Your task to perform on an android device: turn pop-ups on in chrome Image 0: 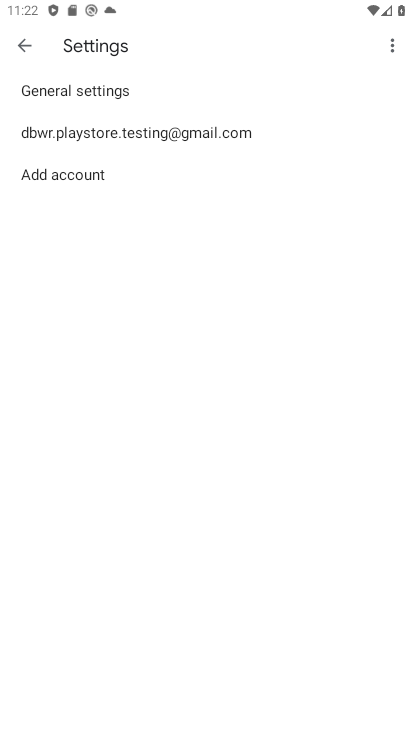
Step 0: press home button
Your task to perform on an android device: turn pop-ups on in chrome Image 1: 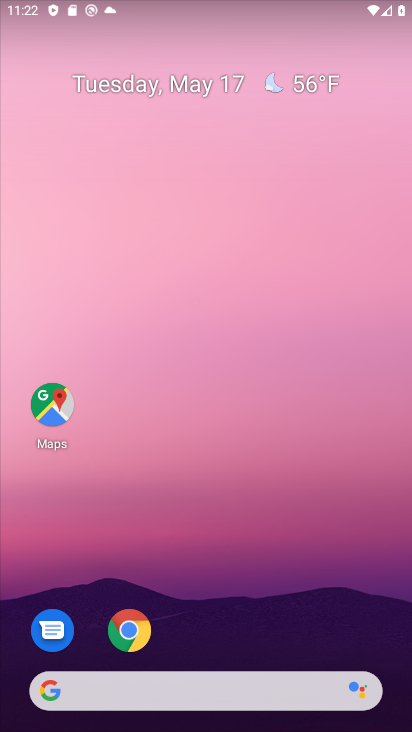
Step 1: drag from (357, 590) to (310, 211)
Your task to perform on an android device: turn pop-ups on in chrome Image 2: 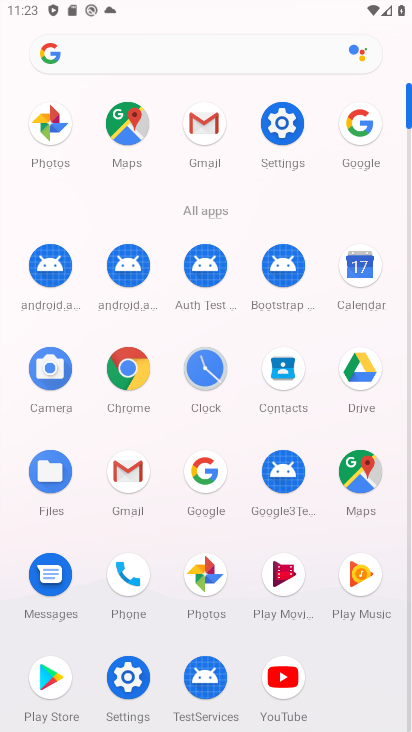
Step 2: click (134, 382)
Your task to perform on an android device: turn pop-ups on in chrome Image 3: 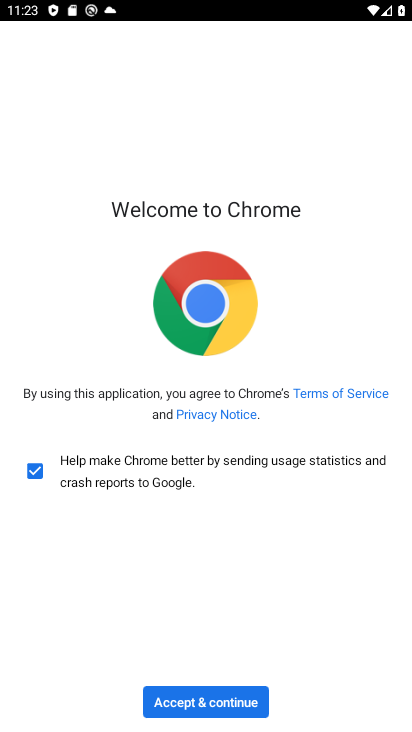
Step 3: click (252, 708)
Your task to perform on an android device: turn pop-ups on in chrome Image 4: 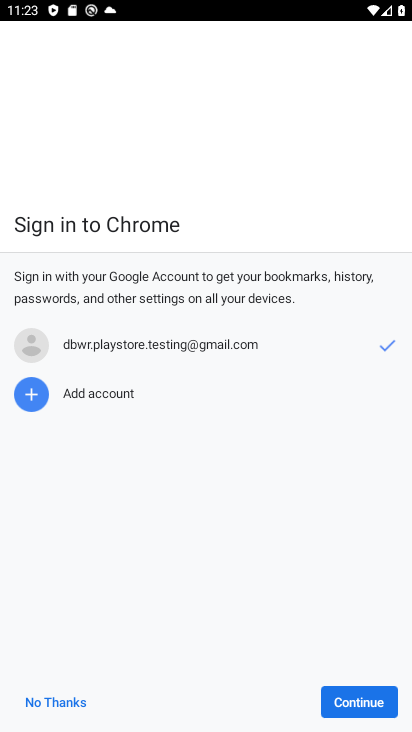
Step 4: click (371, 716)
Your task to perform on an android device: turn pop-ups on in chrome Image 5: 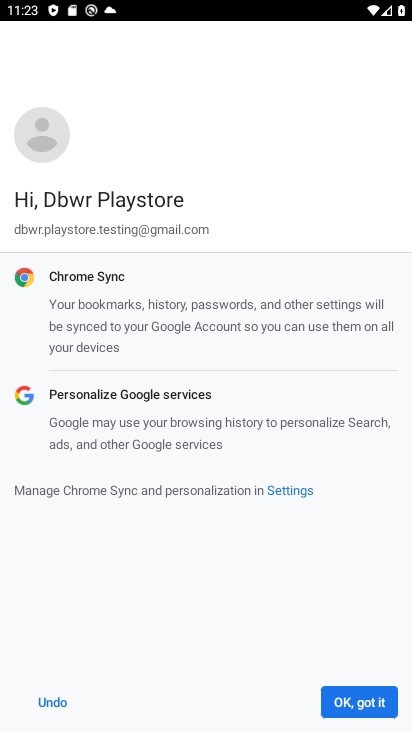
Step 5: click (371, 710)
Your task to perform on an android device: turn pop-ups on in chrome Image 6: 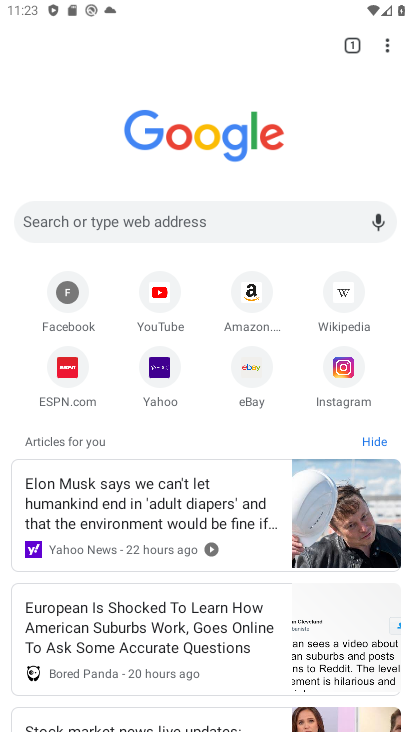
Step 6: drag from (390, 47) to (274, 383)
Your task to perform on an android device: turn pop-ups on in chrome Image 7: 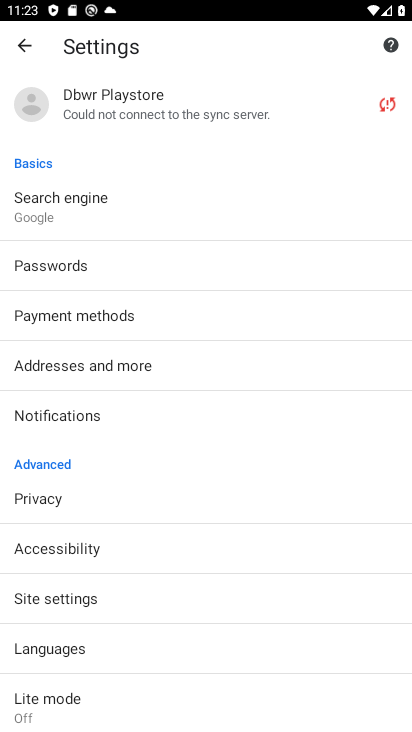
Step 7: drag from (250, 648) to (254, 352)
Your task to perform on an android device: turn pop-ups on in chrome Image 8: 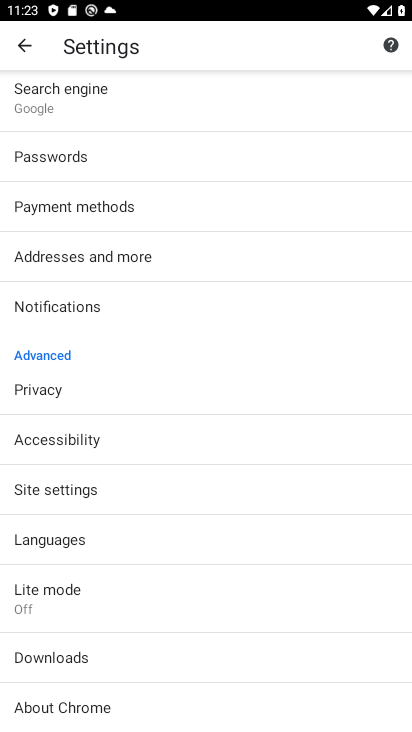
Step 8: click (61, 489)
Your task to perform on an android device: turn pop-ups on in chrome Image 9: 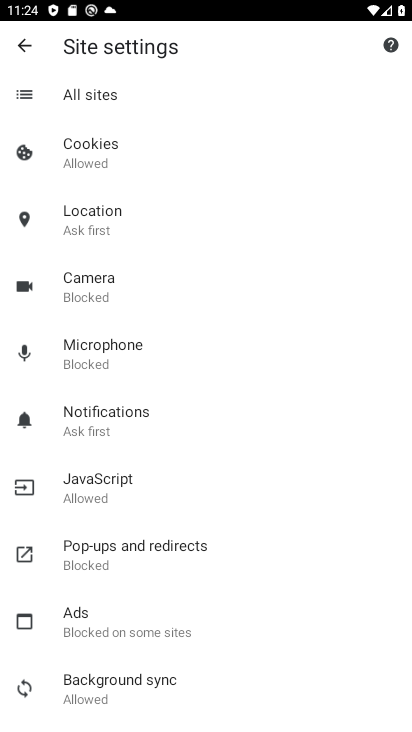
Step 9: click (130, 552)
Your task to perform on an android device: turn pop-ups on in chrome Image 10: 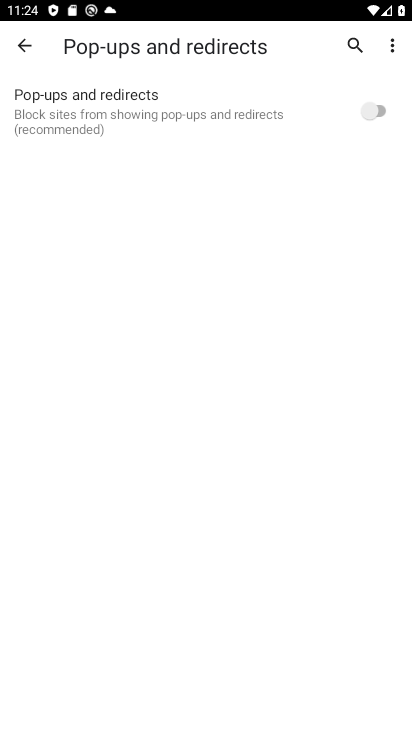
Step 10: click (383, 116)
Your task to perform on an android device: turn pop-ups on in chrome Image 11: 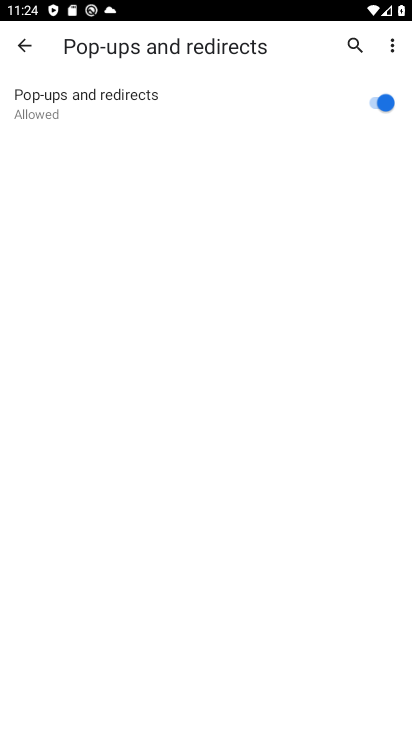
Step 11: task complete